Your task to perform on an android device: open sync settings in chrome Image 0: 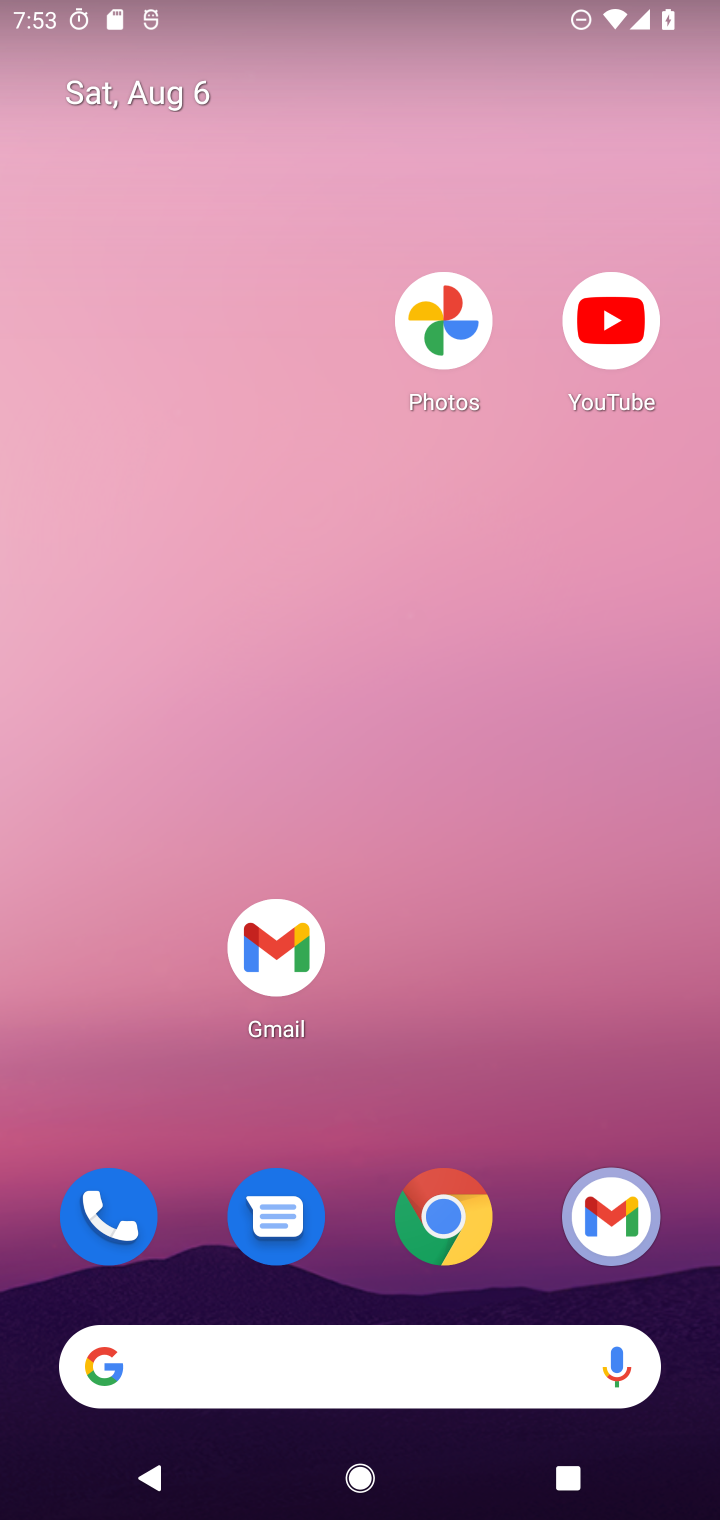
Step 0: drag from (452, 676) to (379, 362)
Your task to perform on an android device: open sync settings in chrome Image 1: 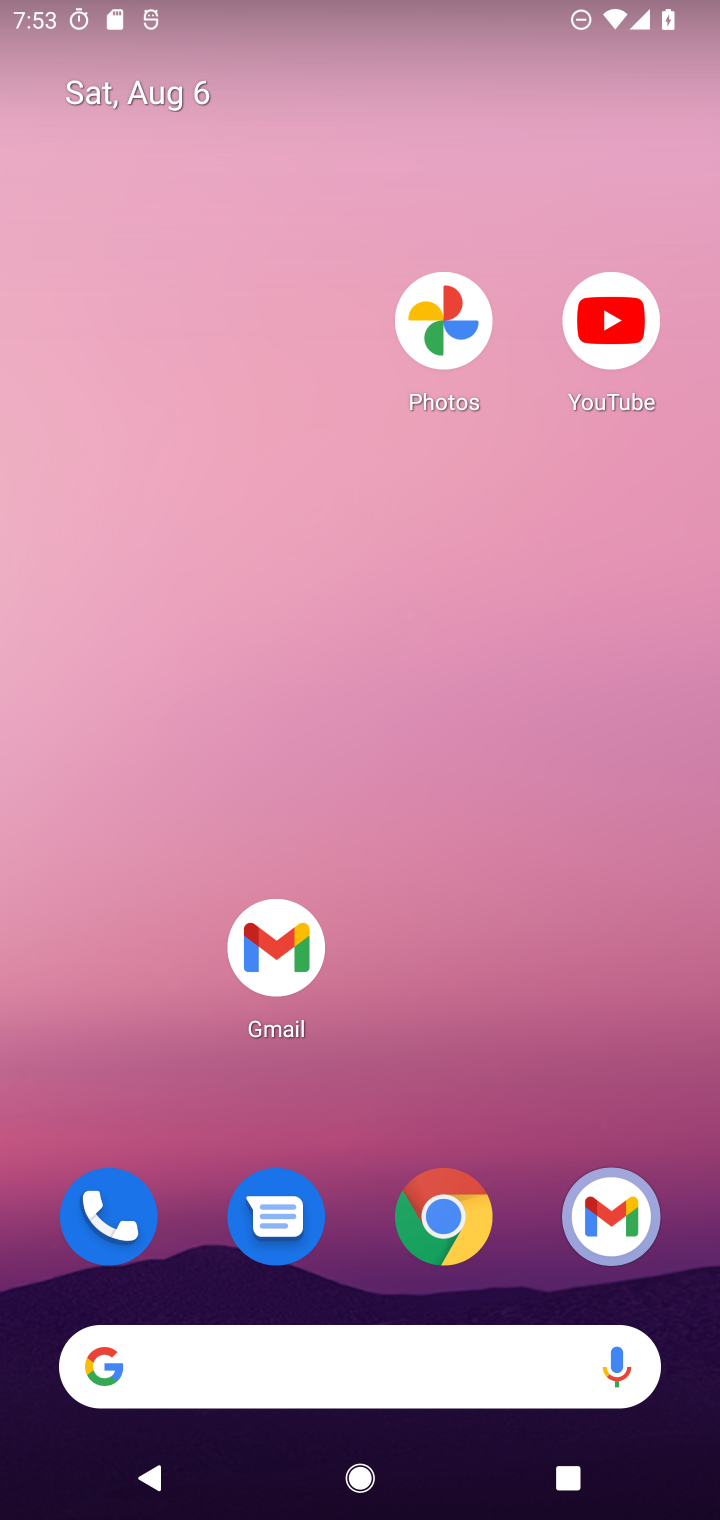
Step 1: drag from (452, 1099) to (288, 238)
Your task to perform on an android device: open sync settings in chrome Image 2: 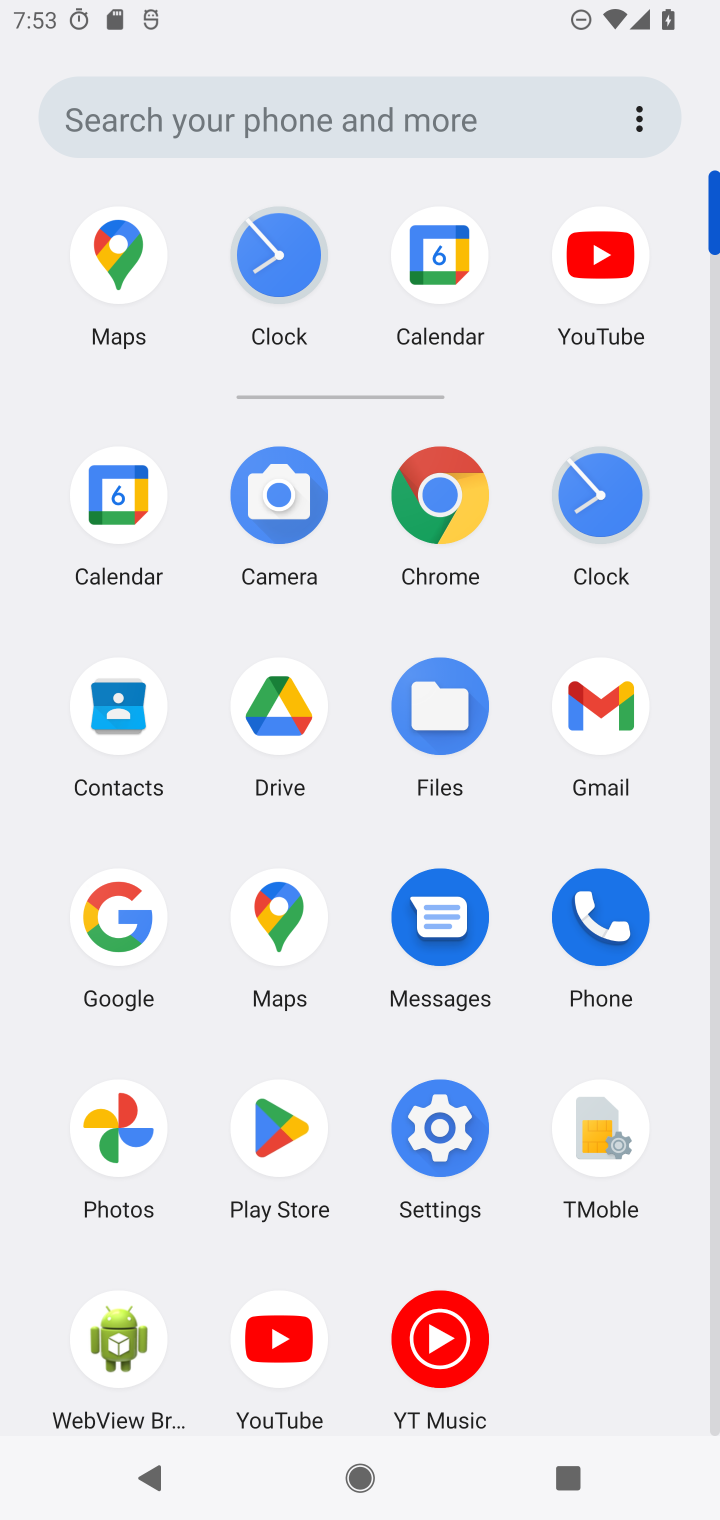
Step 2: click (443, 502)
Your task to perform on an android device: open sync settings in chrome Image 3: 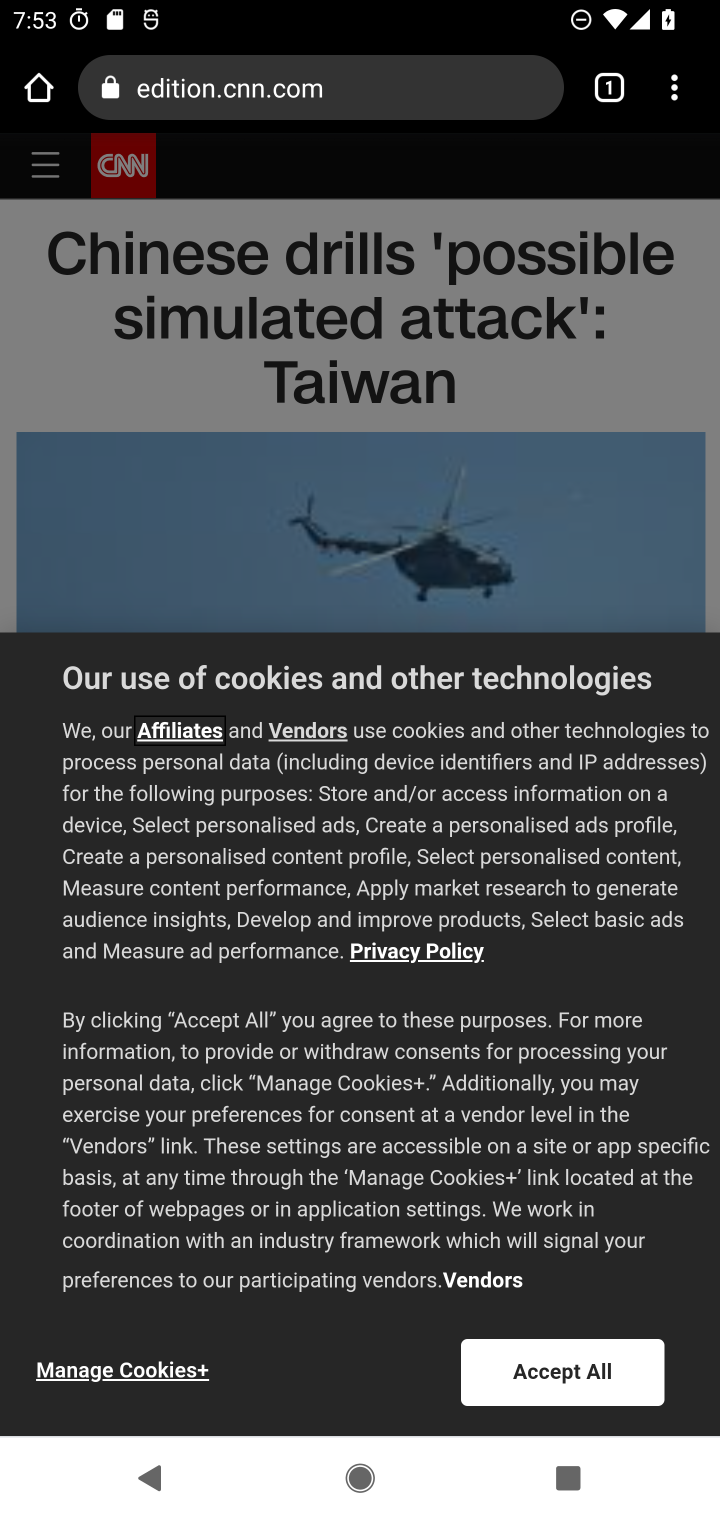
Step 3: drag from (680, 87) to (440, 1171)
Your task to perform on an android device: open sync settings in chrome Image 4: 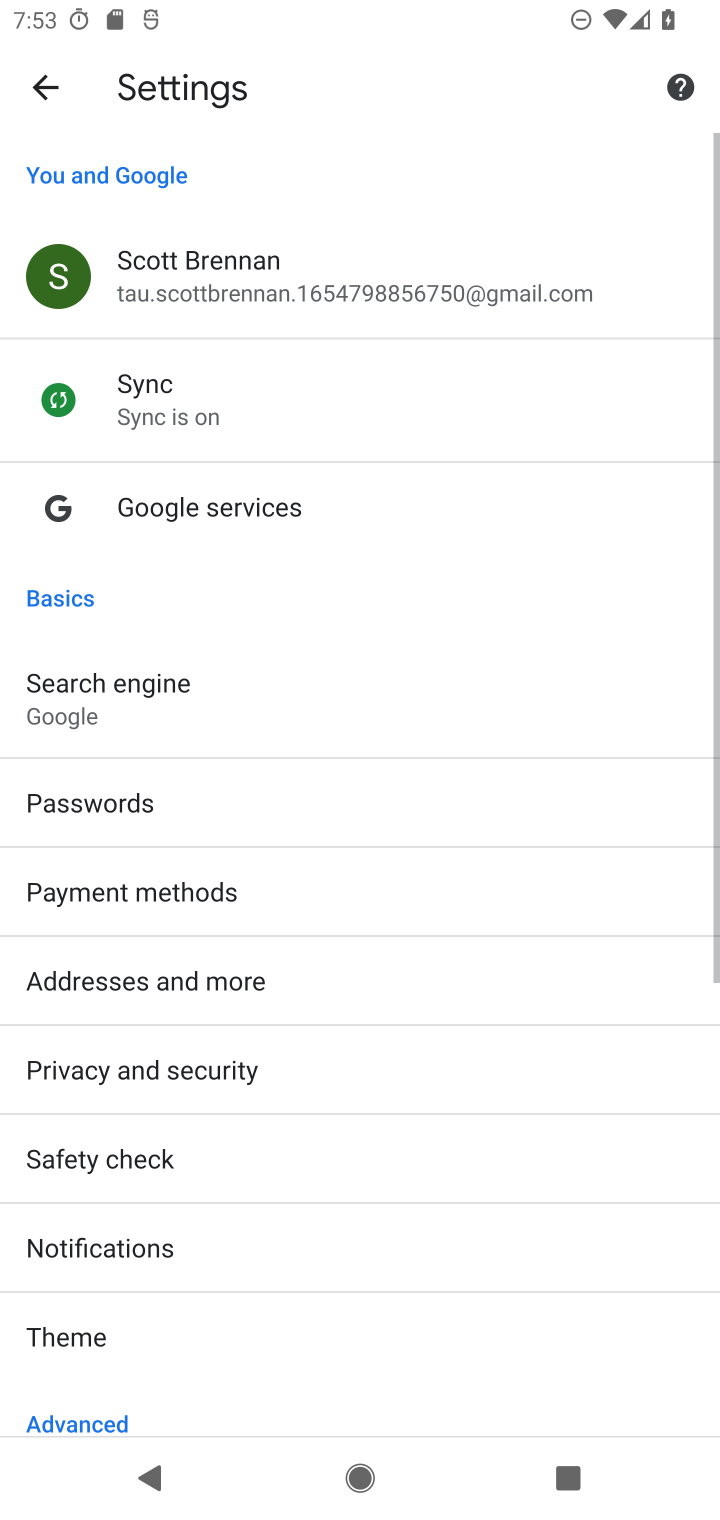
Step 4: click (270, 416)
Your task to perform on an android device: open sync settings in chrome Image 5: 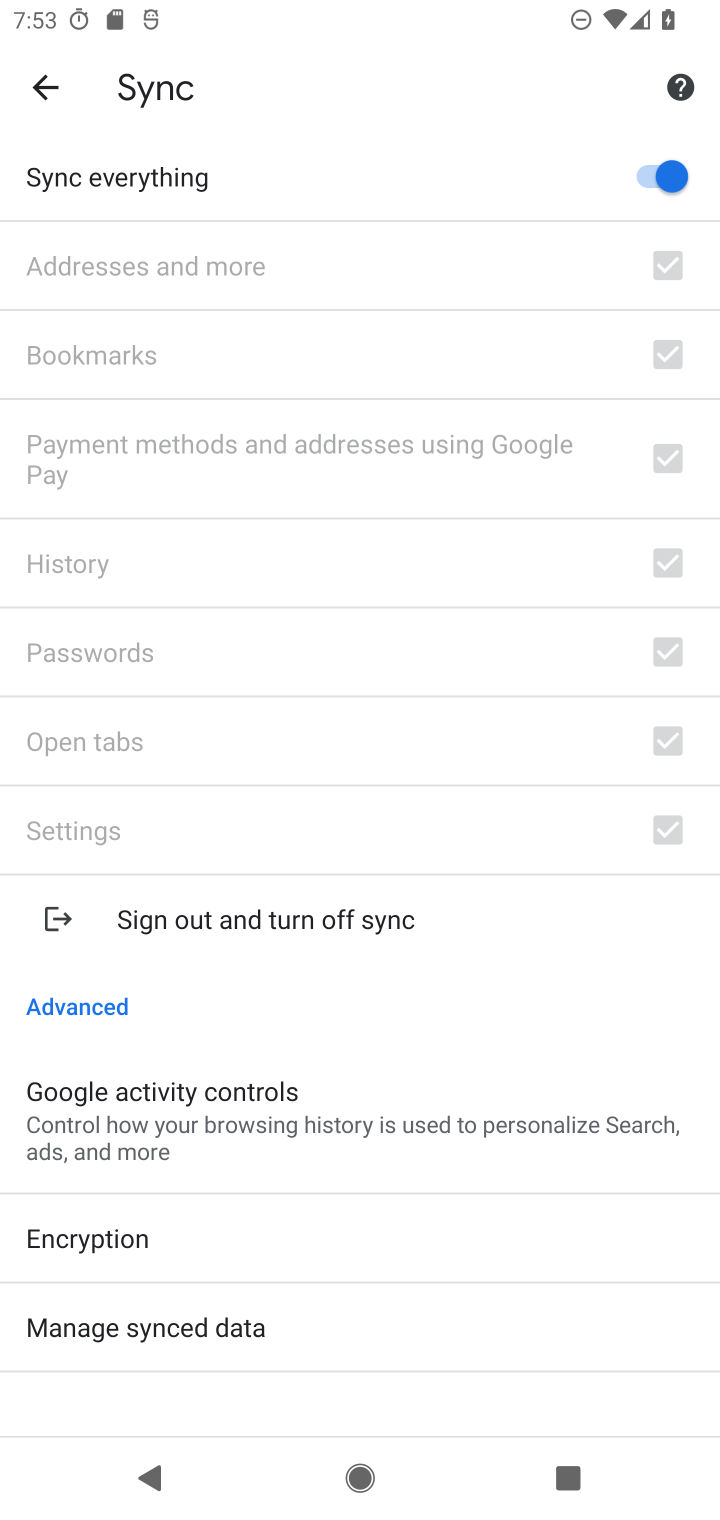
Step 5: task complete